Your task to perform on an android device: stop showing notifications on the lock screen Image 0: 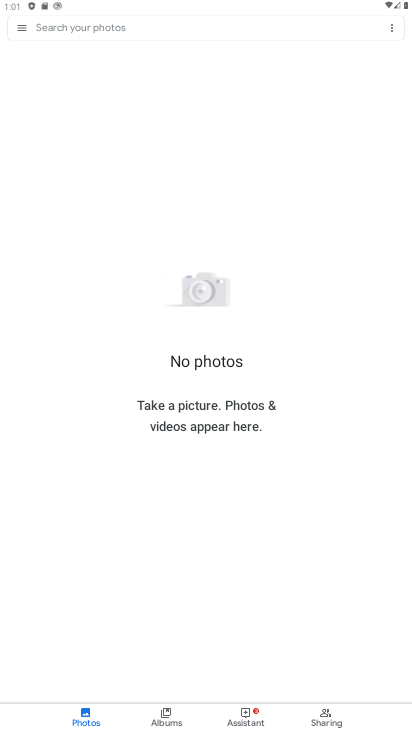
Step 0: drag from (207, 640) to (216, 436)
Your task to perform on an android device: stop showing notifications on the lock screen Image 1: 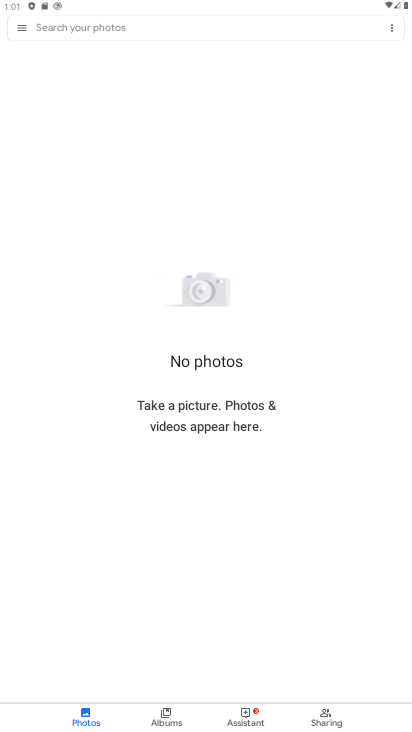
Step 1: press home button
Your task to perform on an android device: stop showing notifications on the lock screen Image 2: 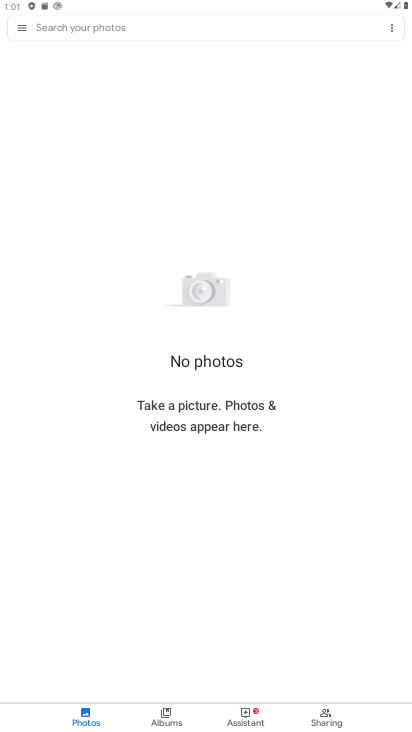
Step 2: press home button
Your task to perform on an android device: stop showing notifications on the lock screen Image 3: 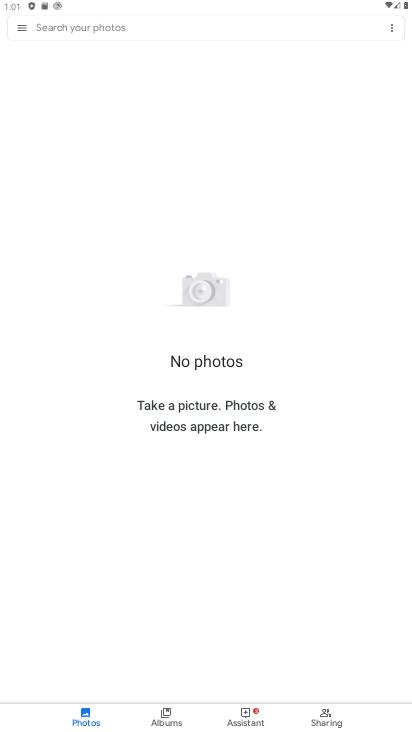
Step 3: drag from (231, 607) to (226, 135)
Your task to perform on an android device: stop showing notifications on the lock screen Image 4: 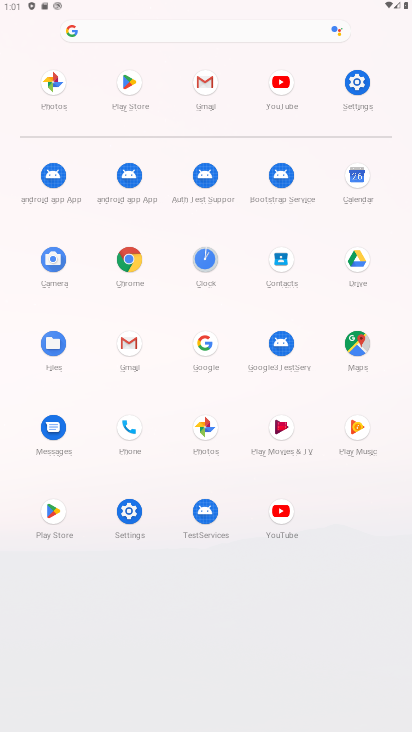
Step 4: click (361, 79)
Your task to perform on an android device: stop showing notifications on the lock screen Image 5: 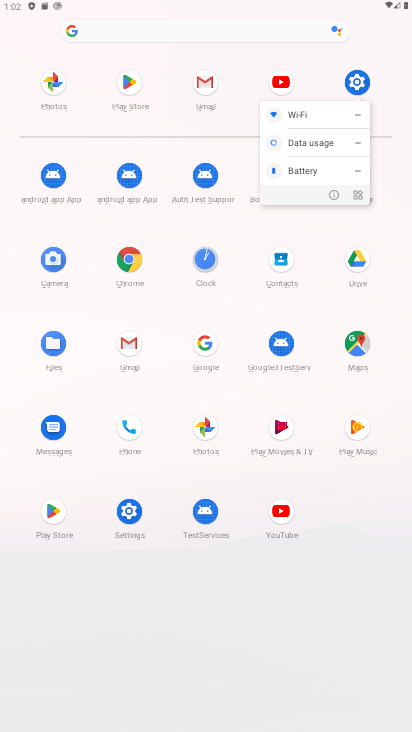
Step 5: click (328, 193)
Your task to perform on an android device: stop showing notifications on the lock screen Image 6: 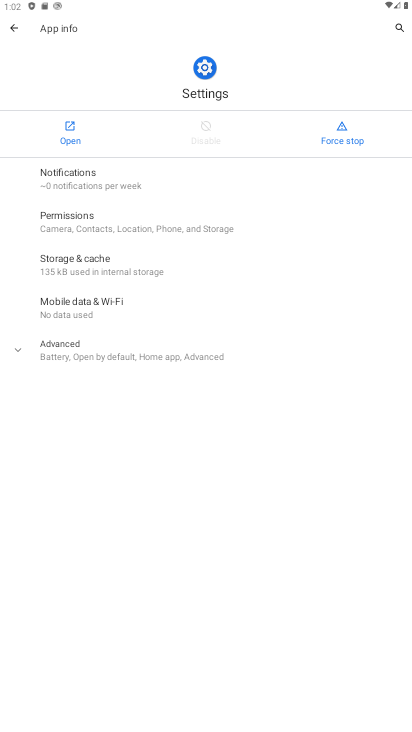
Step 6: click (58, 129)
Your task to perform on an android device: stop showing notifications on the lock screen Image 7: 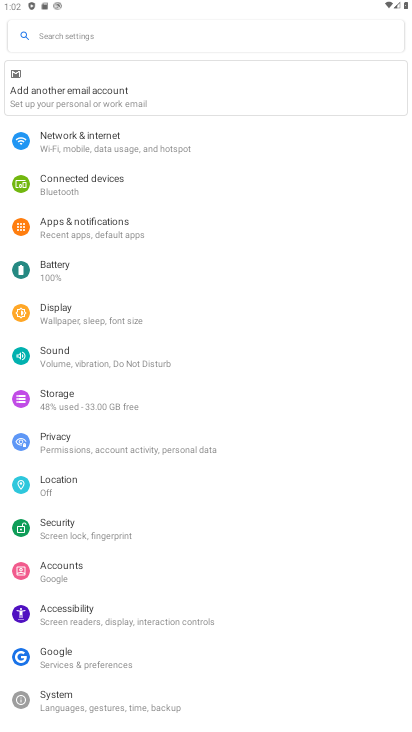
Step 7: click (107, 231)
Your task to perform on an android device: stop showing notifications on the lock screen Image 8: 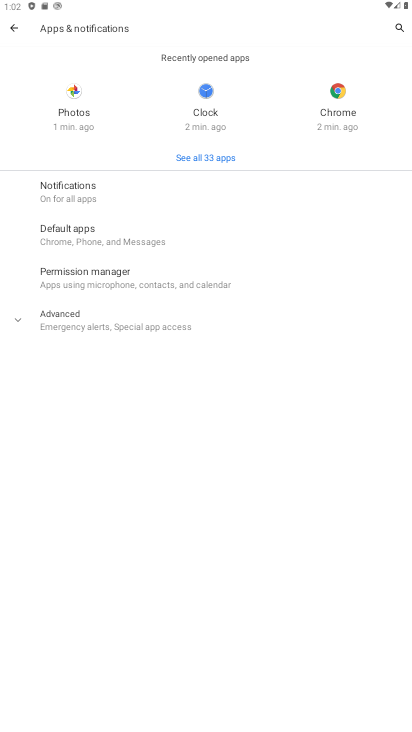
Step 8: click (105, 194)
Your task to perform on an android device: stop showing notifications on the lock screen Image 9: 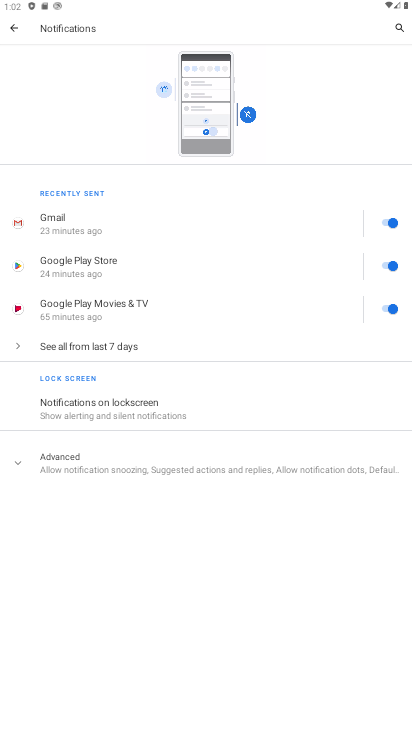
Step 9: click (126, 407)
Your task to perform on an android device: stop showing notifications on the lock screen Image 10: 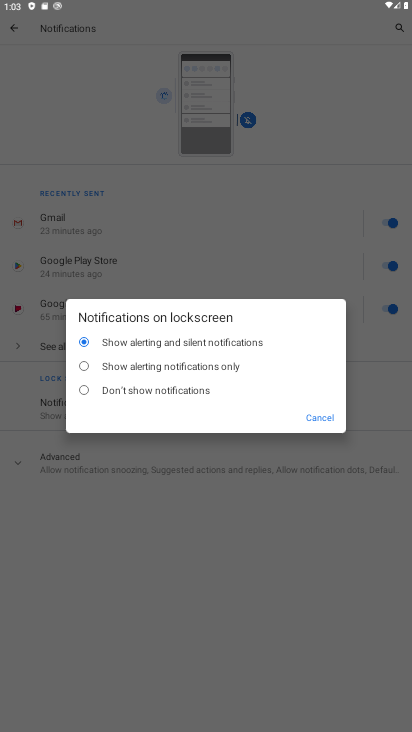
Step 10: click (85, 398)
Your task to perform on an android device: stop showing notifications on the lock screen Image 11: 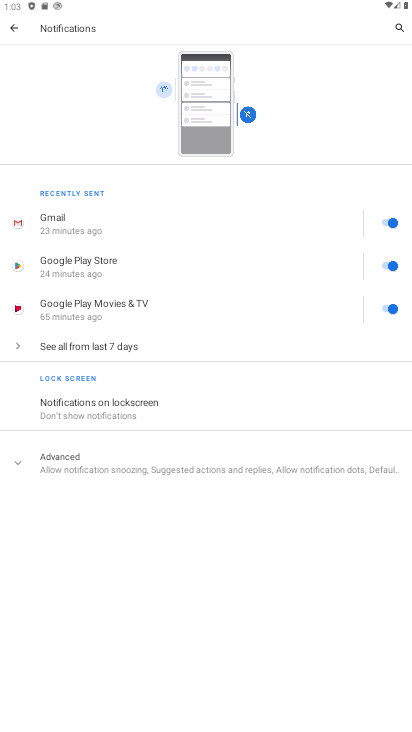
Step 11: task complete